Your task to perform on an android device: snooze an email in the gmail app Image 0: 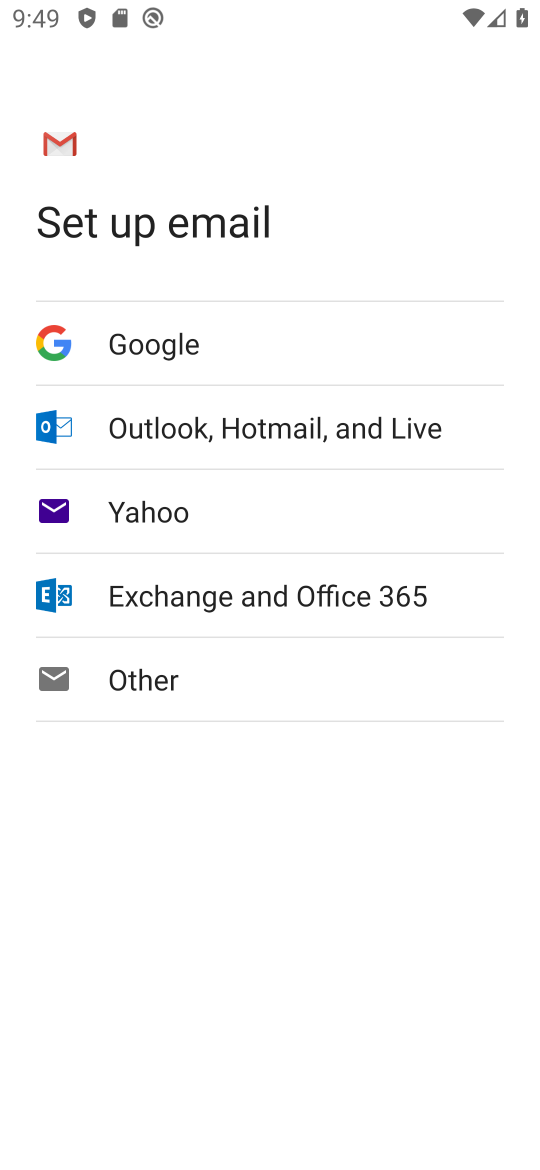
Step 0: press home button
Your task to perform on an android device: snooze an email in the gmail app Image 1: 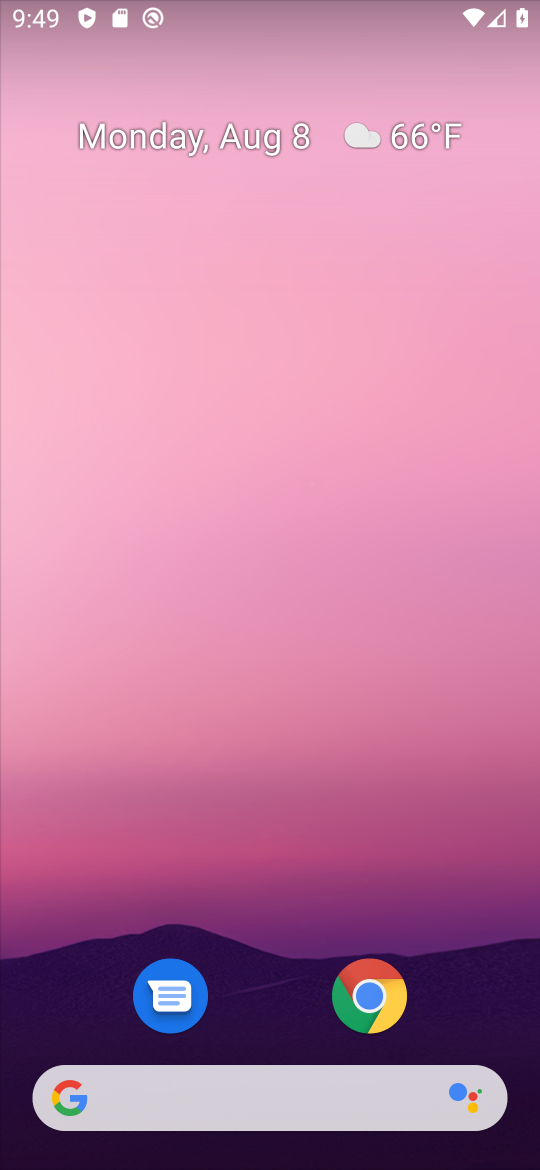
Step 1: drag from (204, 1065) to (204, 384)
Your task to perform on an android device: snooze an email in the gmail app Image 2: 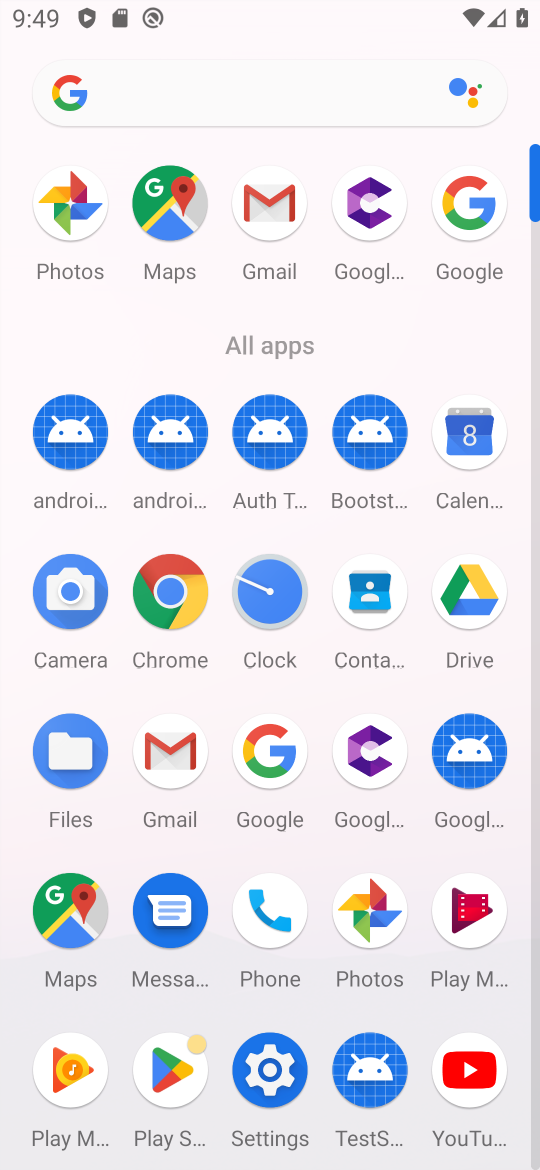
Step 2: click (172, 757)
Your task to perform on an android device: snooze an email in the gmail app Image 3: 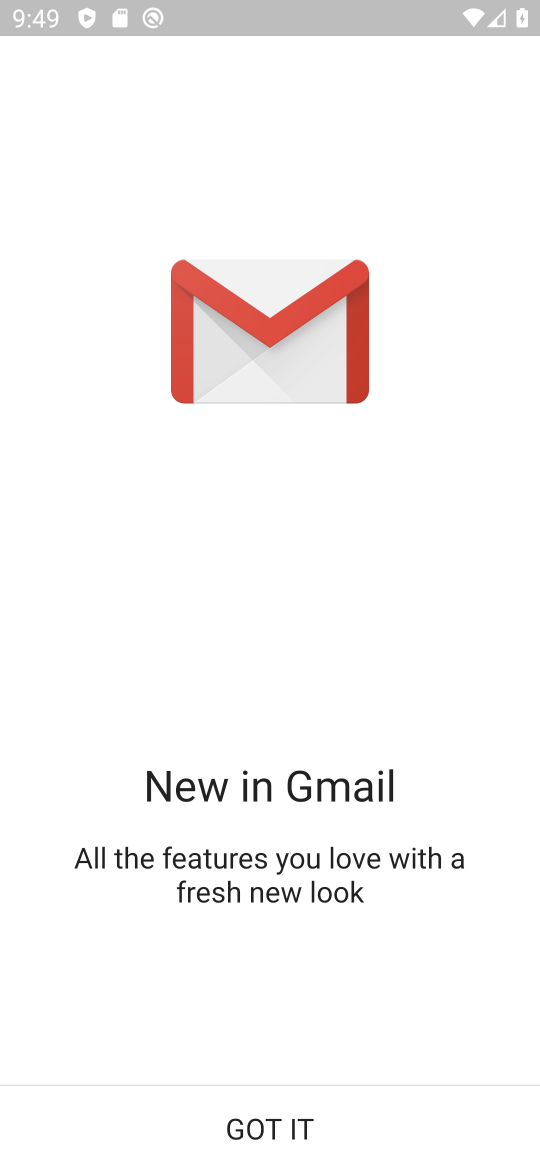
Step 3: click (272, 1142)
Your task to perform on an android device: snooze an email in the gmail app Image 4: 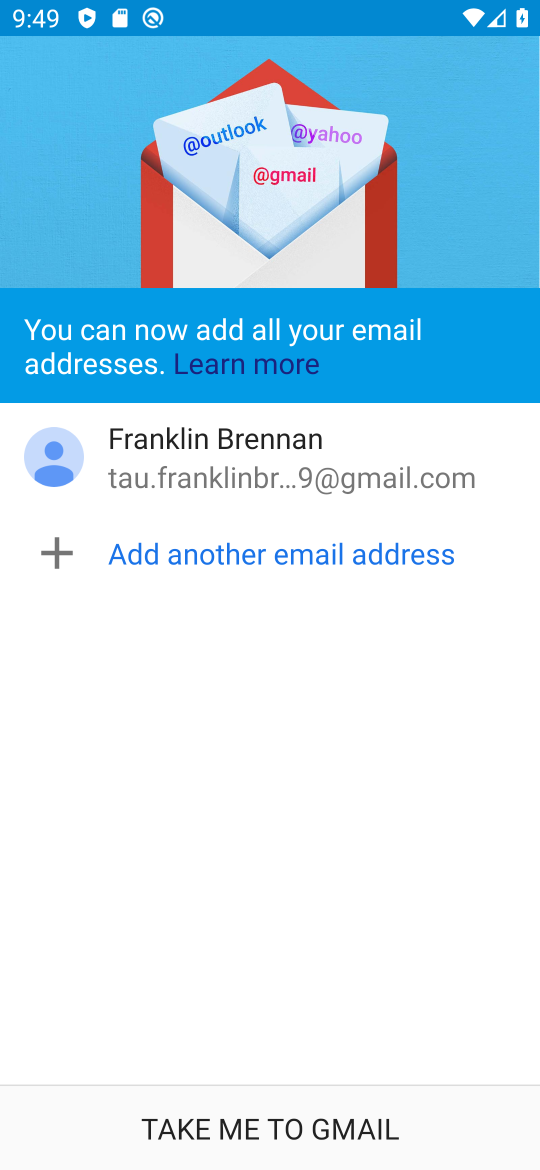
Step 4: click (331, 1140)
Your task to perform on an android device: snooze an email in the gmail app Image 5: 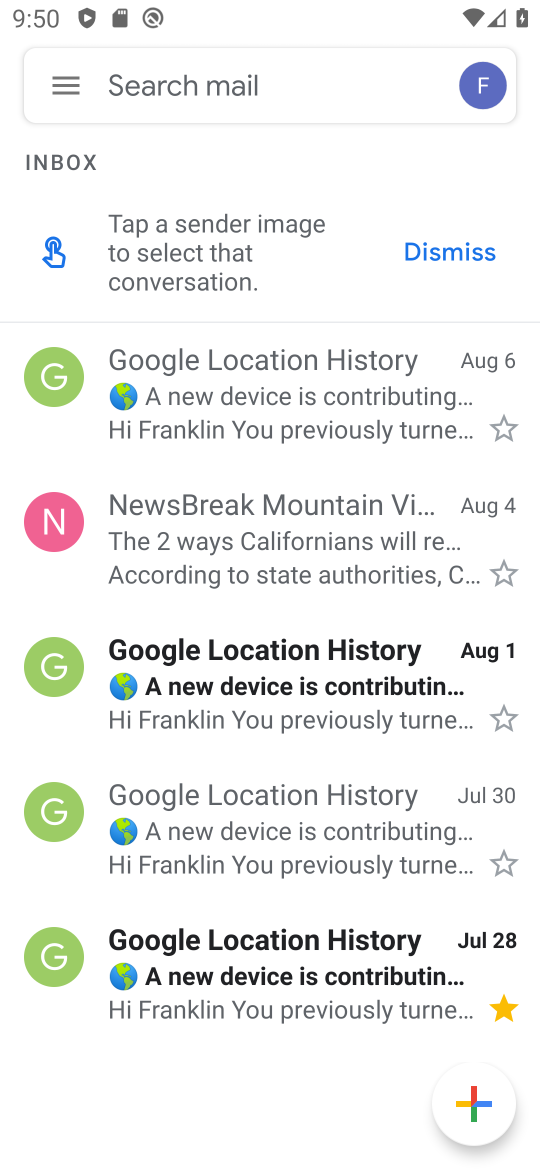
Step 5: click (190, 529)
Your task to perform on an android device: snooze an email in the gmail app Image 6: 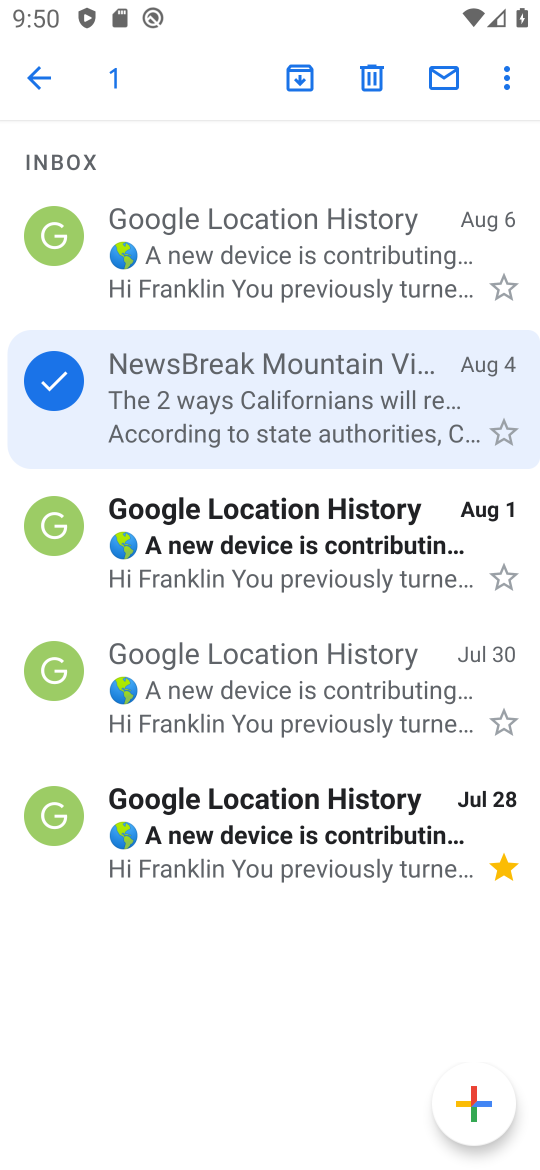
Step 6: click (507, 76)
Your task to perform on an android device: snooze an email in the gmail app Image 7: 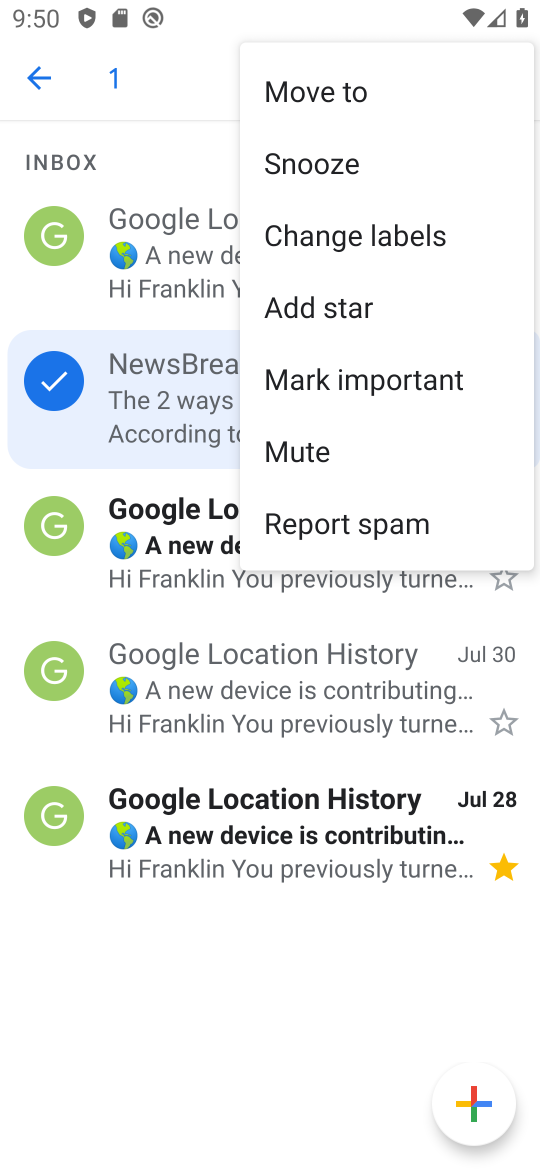
Step 7: click (280, 165)
Your task to perform on an android device: snooze an email in the gmail app Image 8: 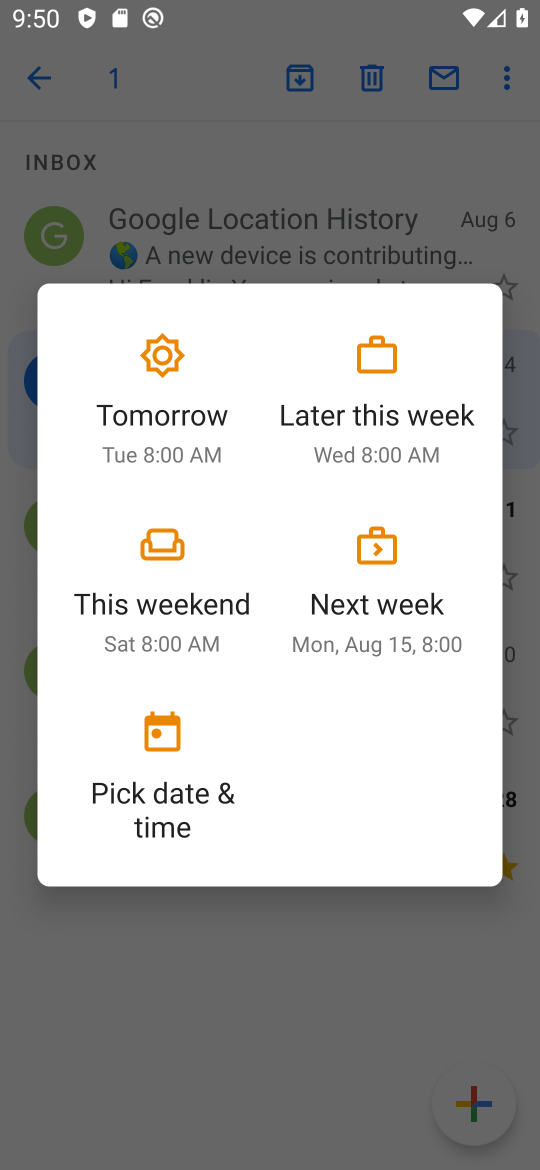
Step 8: click (139, 412)
Your task to perform on an android device: snooze an email in the gmail app Image 9: 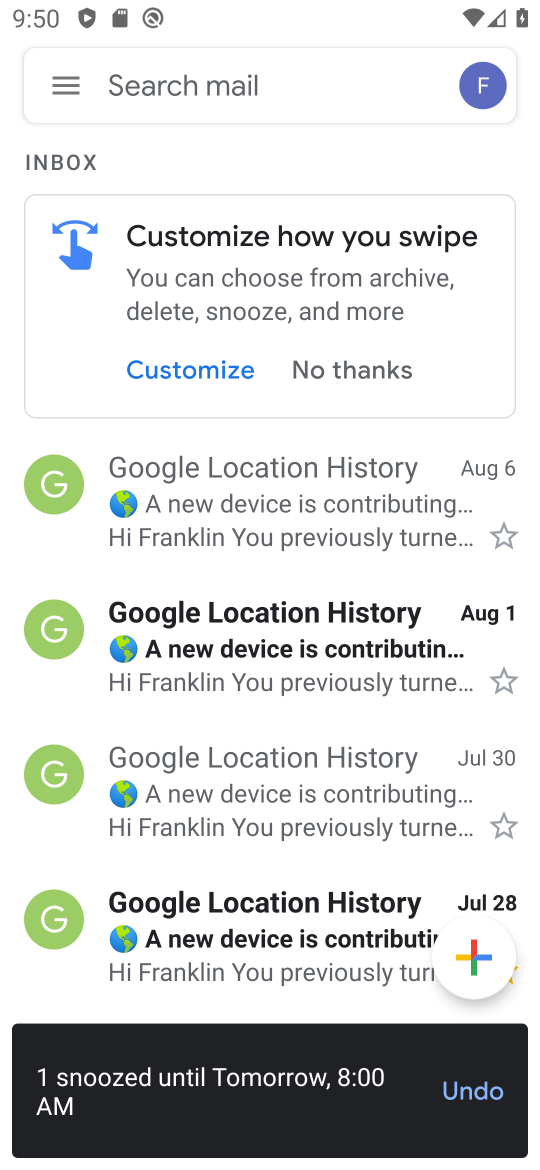
Step 9: task complete